Your task to perform on an android device: Open settings on Google Maps Image 0: 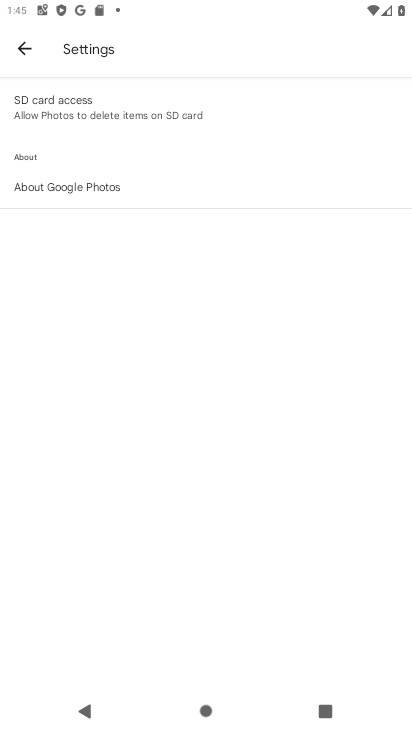
Step 0: drag from (189, 621) to (226, 226)
Your task to perform on an android device: Open settings on Google Maps Image 1: 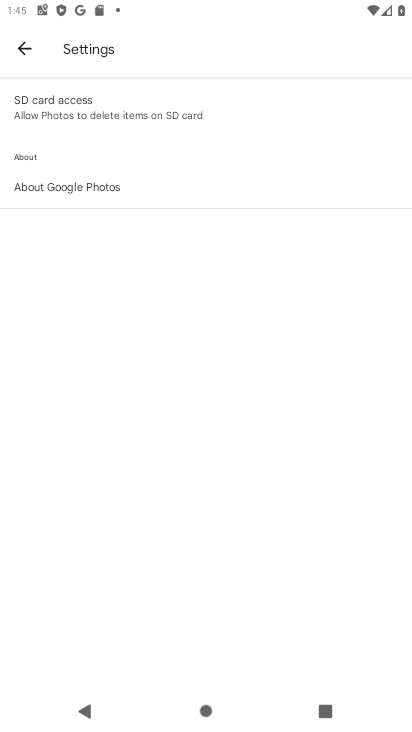
Step 1: press home button
Your task to perform on an android device: Open settings on Google Maps Image 2: 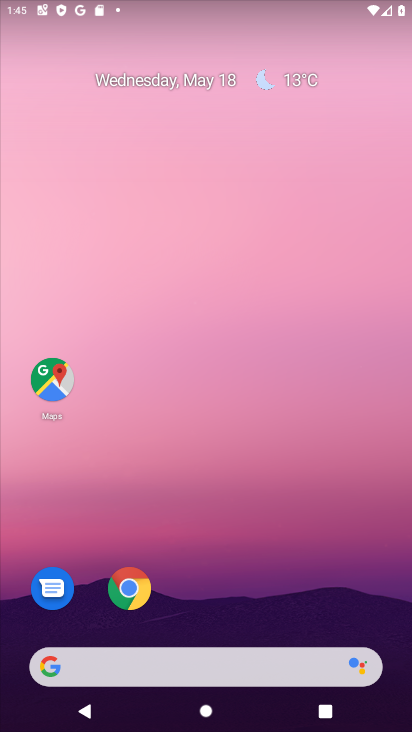
Step 2: drag from (197, 619) to (257, 108)
Your task to perform on an android device: Open settings on Google Maps Image 3: 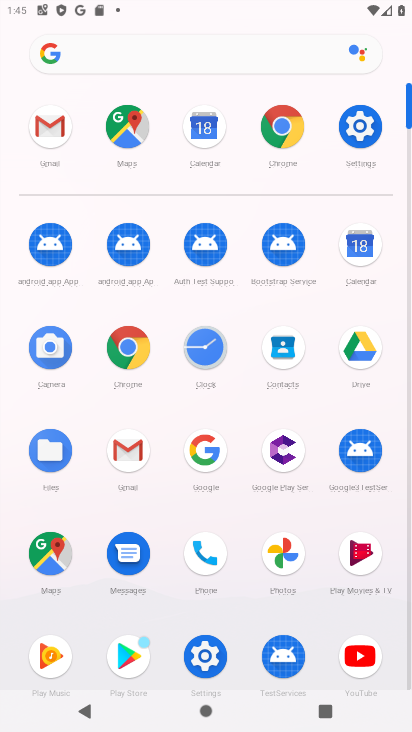
Step 3: click (46, 550)
Your task to perform on an android device: Open settings on Google Maps Image 4: 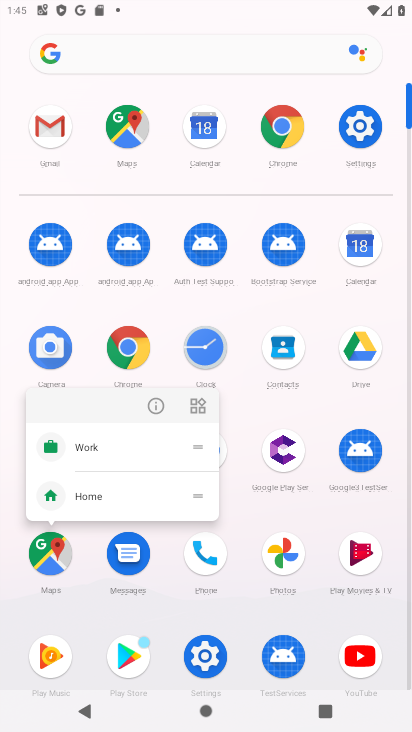
Step 4: click (156, 407)
Your task to perform on an android device: Open settings on Google Maps Image 5: 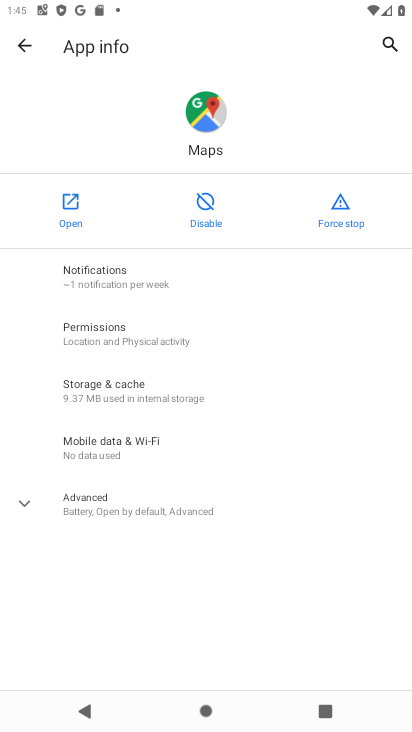
Step 5: click (63, 204)
Your task to perform on an android device: Open settings on Google Maps Image 6: 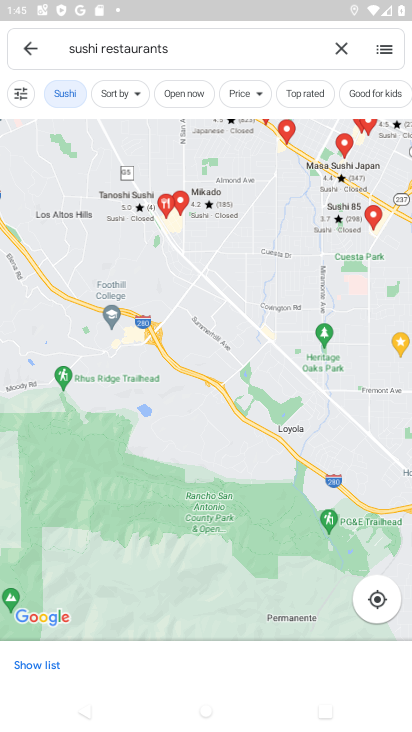
Step 6: click (30, 53)
Your task to perform on an android device: Open settings on Google Maps Image 7: 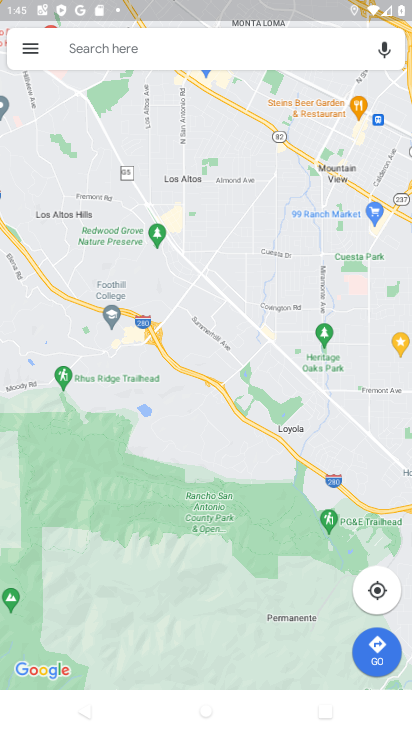
Step 7: click (30, 53)
Your task to perform on an android device: Open settings on Google Maps Image 8: 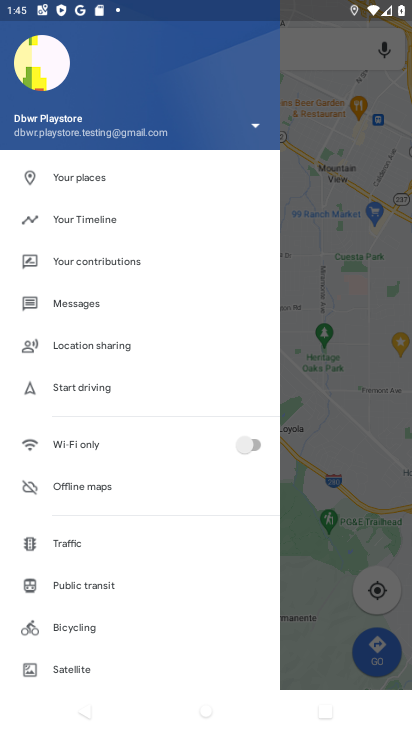
Step 8: drag from (92, 633) to (118, 187)
Your task to perform on an android device: Open settings on Google Maps Image 9: 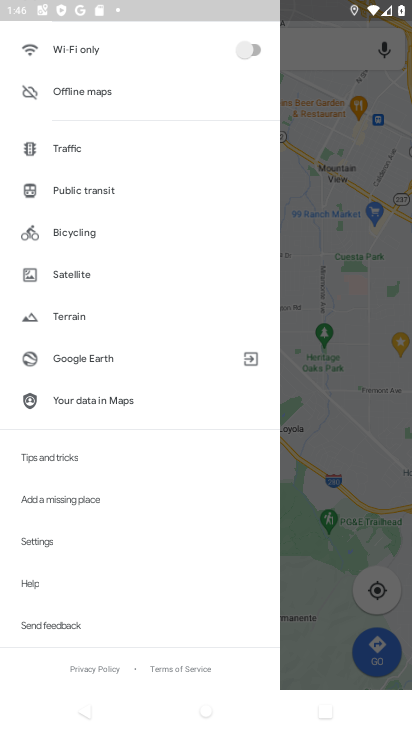
Step 9: click (66, 540)
Your task to perform on an android device: Open settings on Google Maps Image 10: 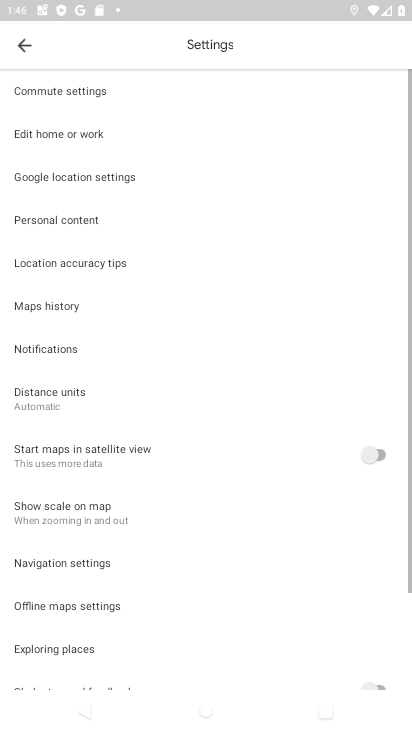
Step 10: task complete